Your task to perform on an android device: turn off javascript in the chrome app Image 0: 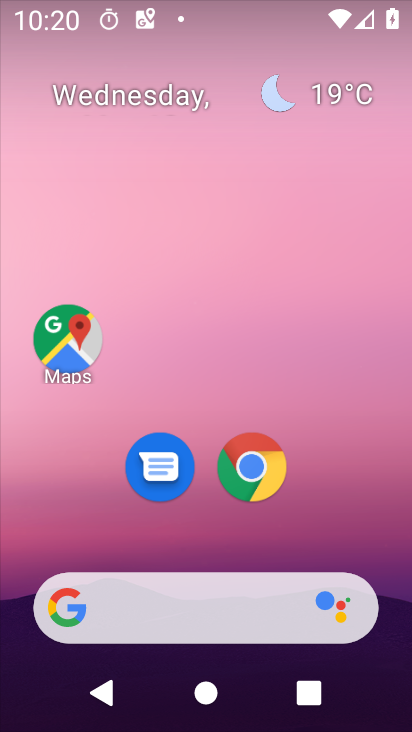
Step 0: click (262, 488)
Your task to perform on an android device: turn off javascript in the chrome app Image 1: 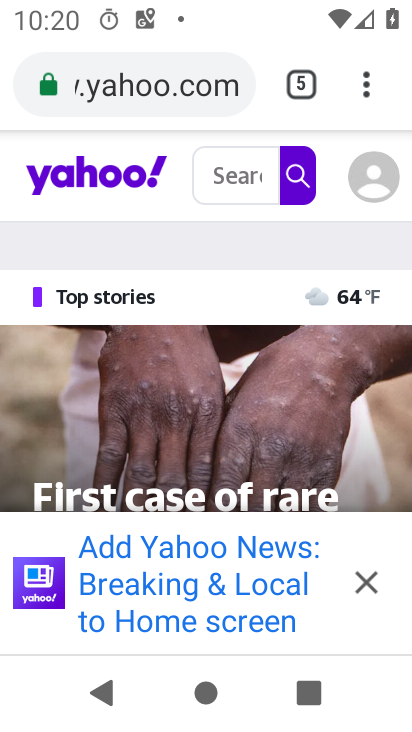
Step 1: click (373, 75)
Your task to perform on an android device: turn off javascript in the chrome app Image 2: 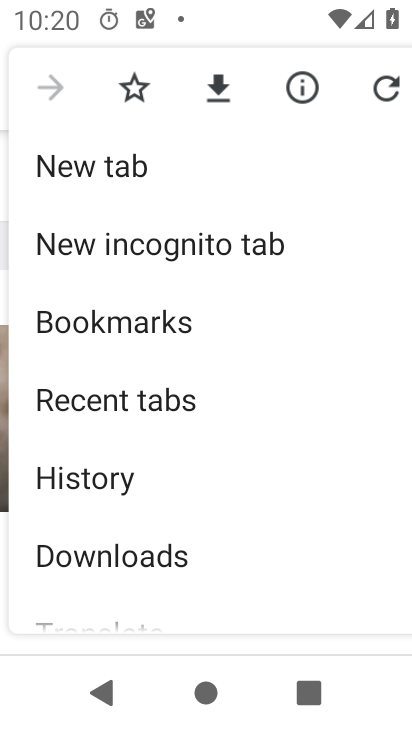
Step 2: drag from (243, 563) to (182, 118)
Your task to perform on an android device: turn off javascript in the chrome app Image 3: 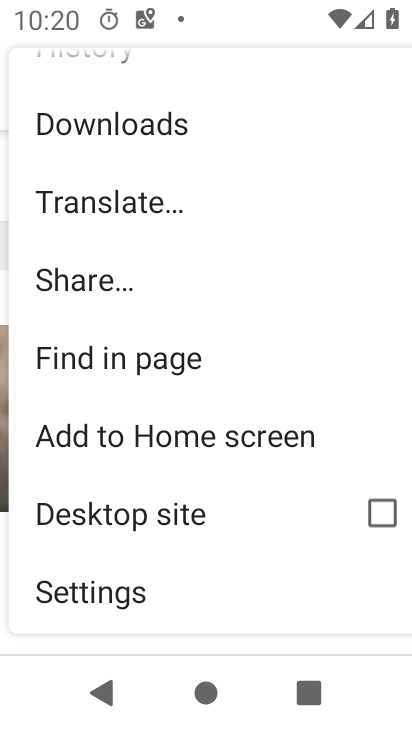
Step 3: click (165, 585)
Your task to perform on an android device: turn off javascript in the chrome app Image 4: 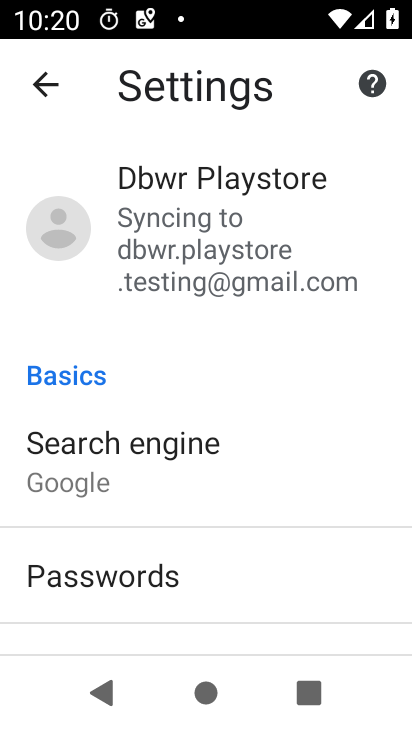
Step 4: drag from (242, 539) to (212, 131)
Your task to perform on an android device: turn off javascript in the chrome app Image 5: 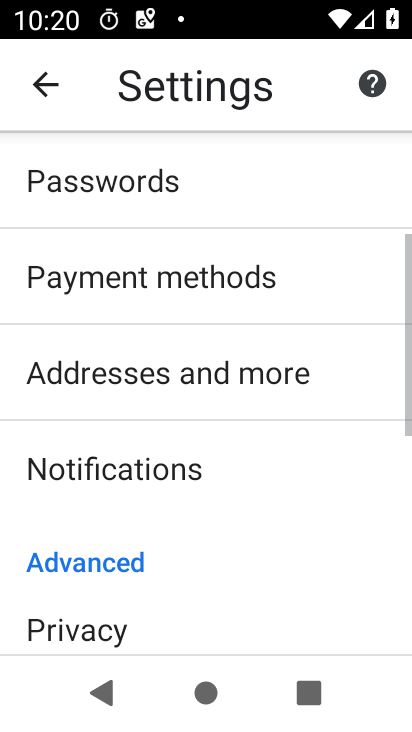
Step 5: drag from (175, 540) to (176, 207)
Your task to perform on an android device: turn off javascript in the chrome app Image 6: 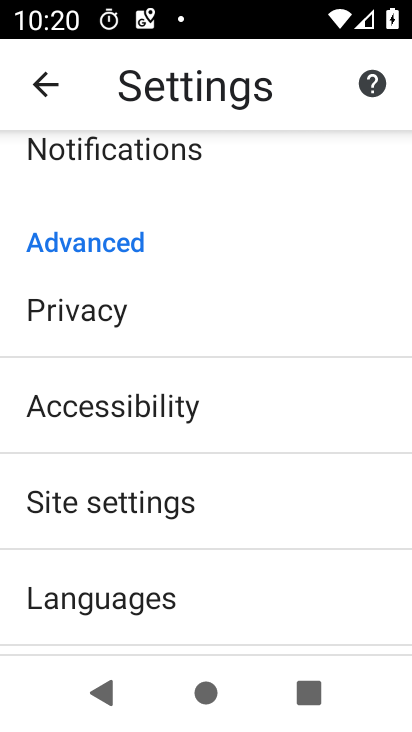
Step 6: drag from (199, 597) to (182, 407)
Your task to perform on an android device: turn off javascript in the chrome app Image 7: 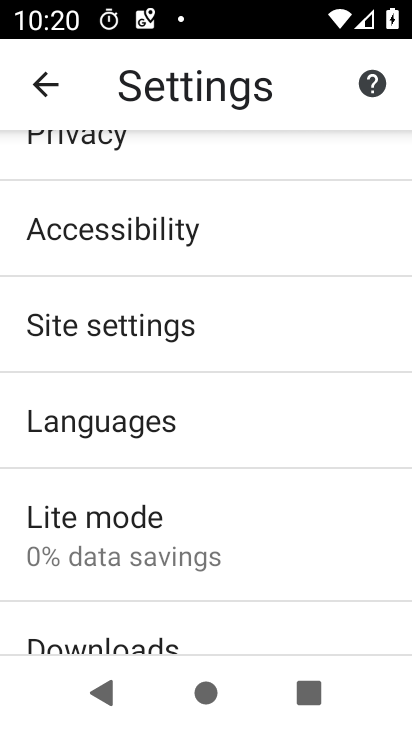
Step 7: click (164, 339)
Your task to perform on an android device: turn off javascript in the chrome app Image 8: 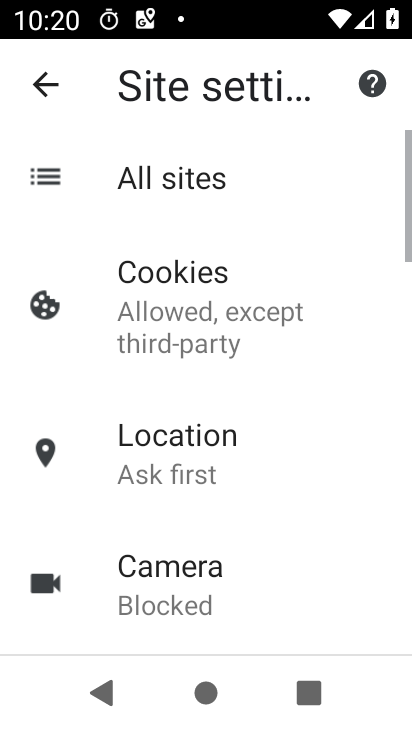
Step 8: drag from (241, 504) to (203, 169)
Your task to perform on an android device: turn off javascript in the chrome app Image 9: 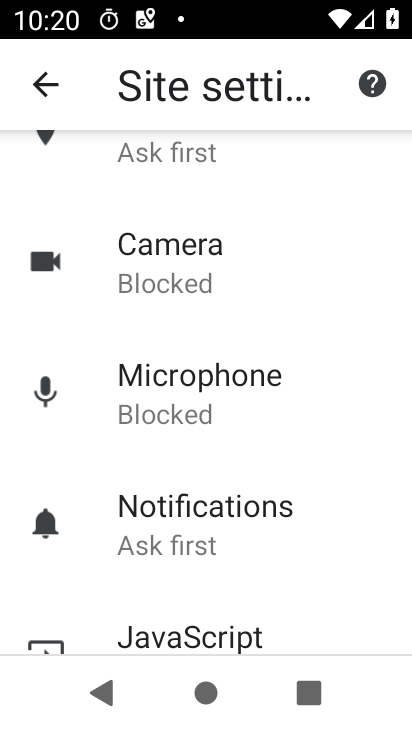
Step 9: click (252, 615)
Your task to perform on an android device: turn off javascript in the chrome app Image 10: 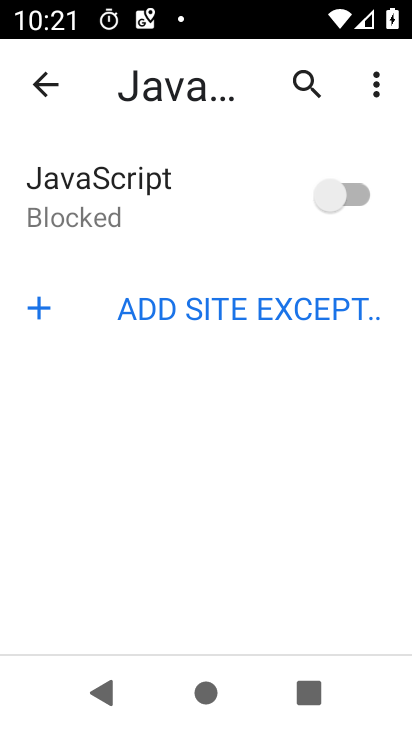
Step 10: task complete